Your task to perform on an android device: Go to settings Image 0: 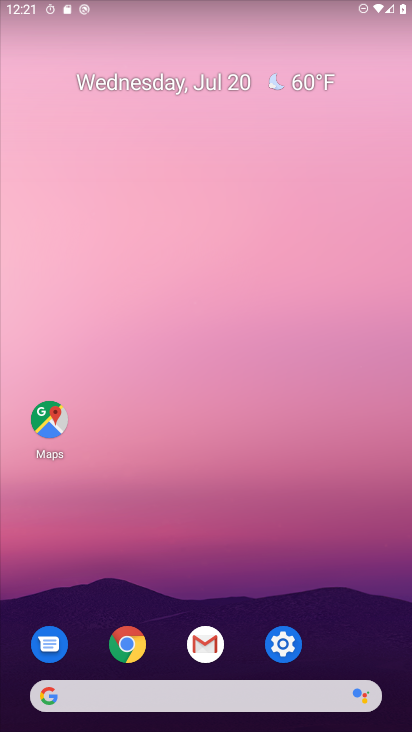
Step 0: click (293, 643)
Your task to perform on an android device: Go to settings Image 1: 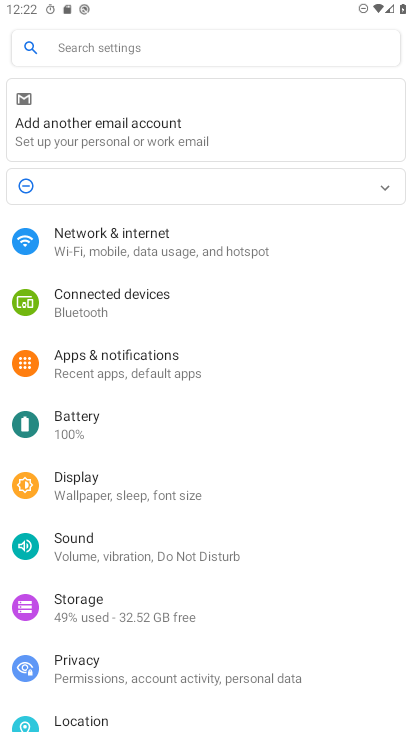
Step 1: task complete